Your task to perform on an android device: turn on sleep mode Image 0: 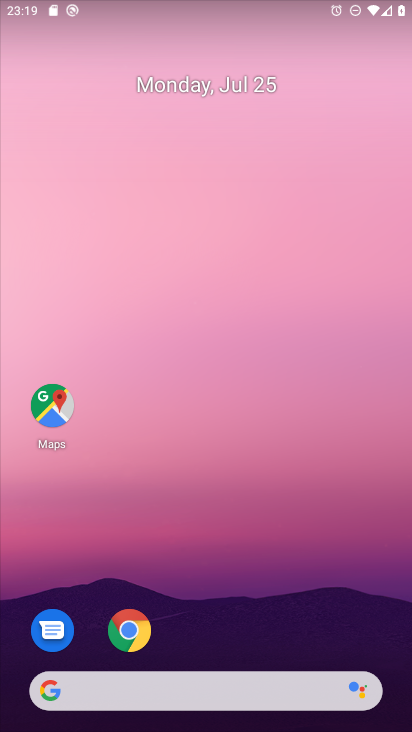
Step 0: drag from (276, 616) to (169, 18)
Your task to perform on an android device: turn on sleep mode Image 1: 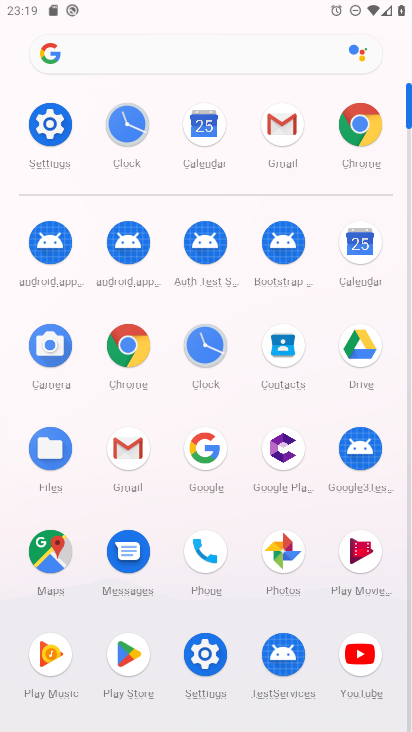
Step 1: click (60, 120)
Your task to perform on an android device: turn on sleep mode Image 2: 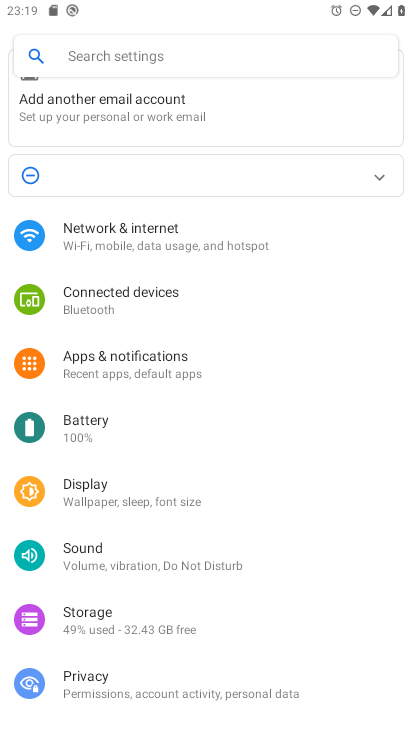
Step 2: click (133, 495)
Your task to perform on an android device: turn on sleep mode Image 3: 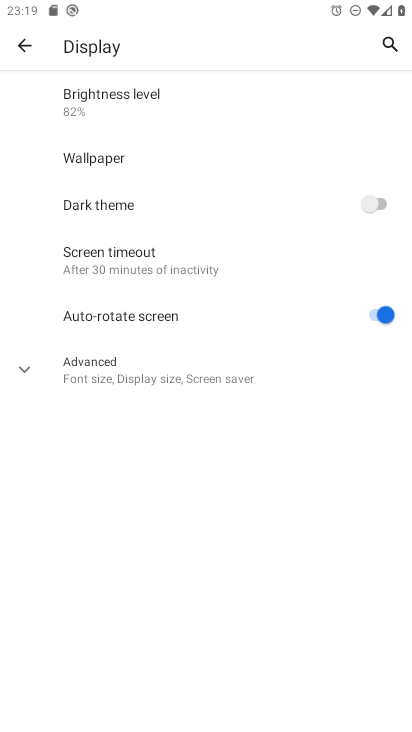
Step 3: click (141, 261)
Your task to perform on an android device: turn on sleep mode Image 4: 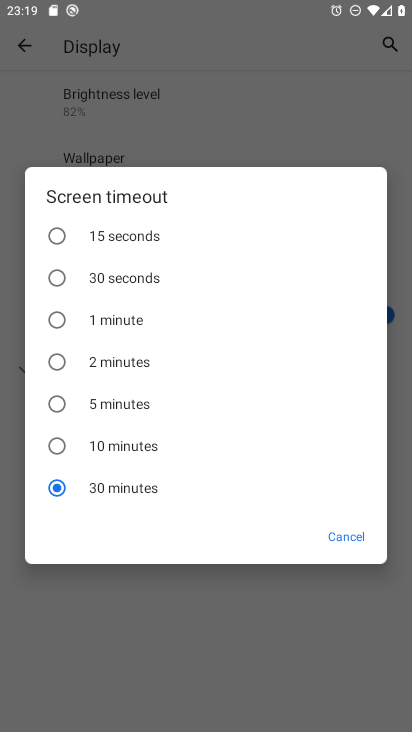
Step 4: task complete